Your task to perform on an android device: set the timer Image 0: 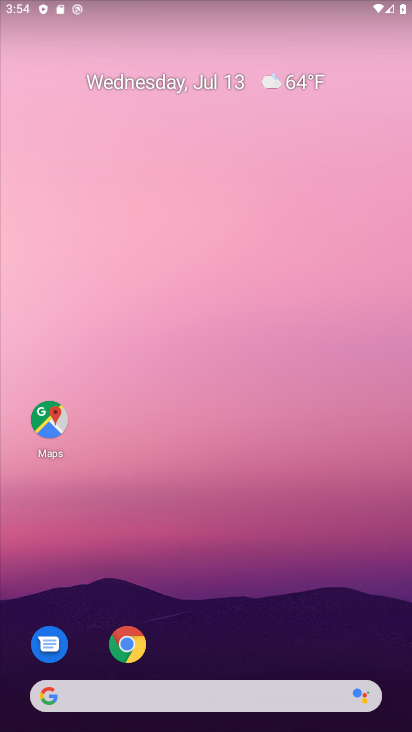
Step 0: click (127, 644)
Your task to perform on an android device: set the timer Image 1: 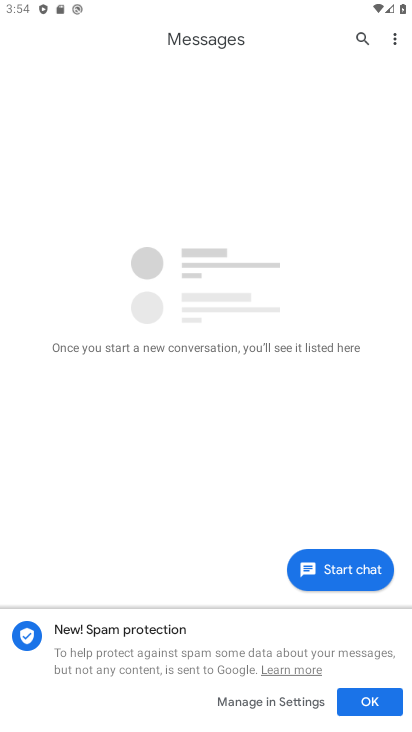
Step 1: press home button
Your task to perform on an android device: set the timer Image 2: 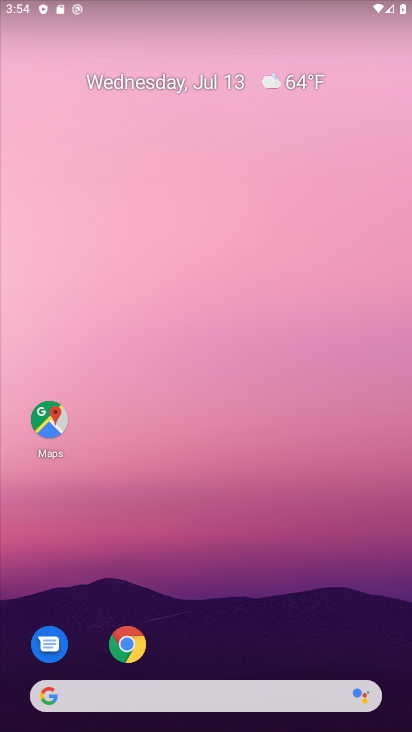
Step 2: drag from (267, 539) to (243, 120)
Your task to perform on an android device: set the timer Image 3: 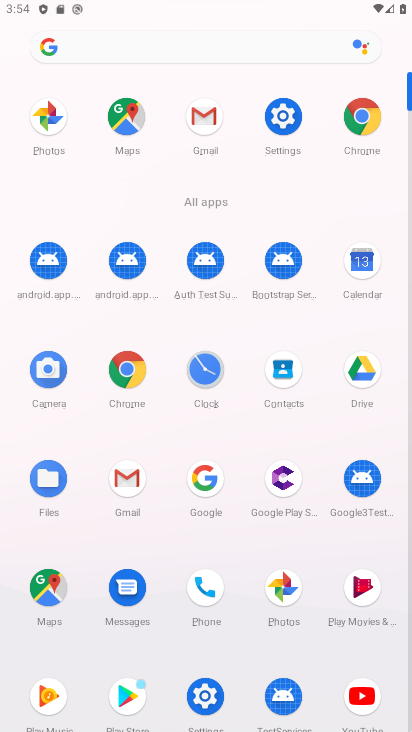
Step 3: click (200, 364)
Your task to perform on an android device: set the timer Image 4: 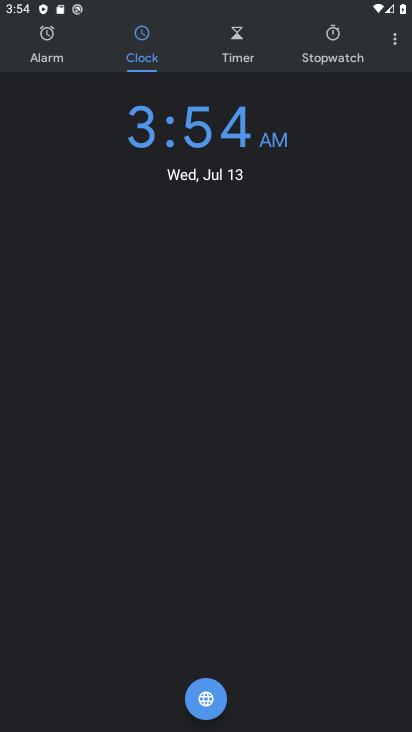
Step 4: click (232, 43)
Your task to perform on an android device: set the timer Image 5: 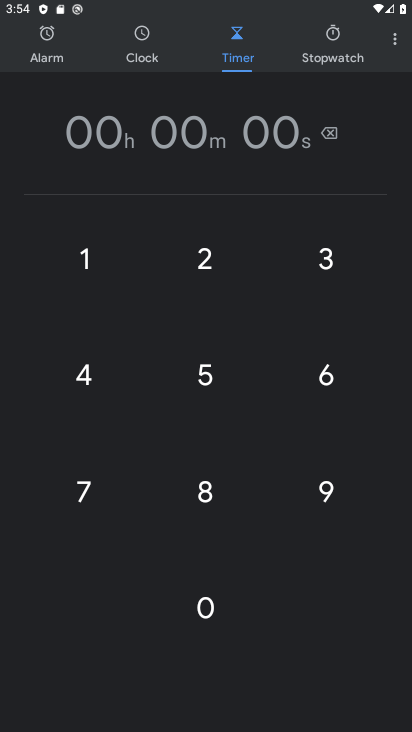
Step 5: click (88, 265)
Your task to perform on an android device: set the timer Image 6: 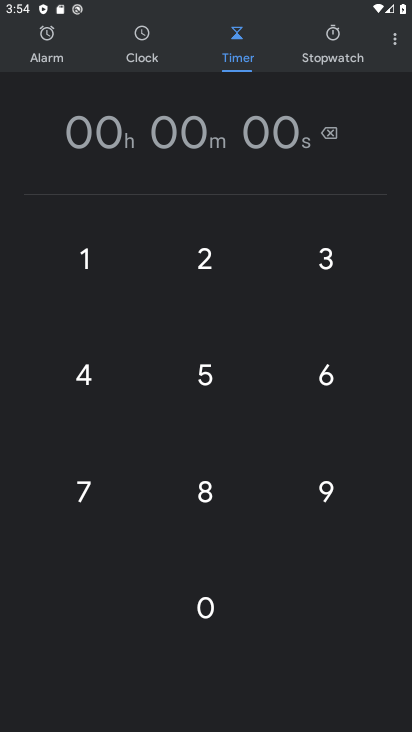
Step 6: click (88, 265)
Your task to perform on an android device: set the timer Image 7: 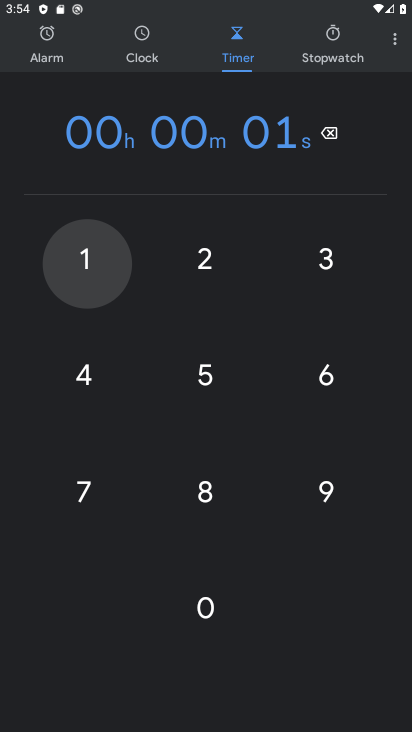
Step 7: click (88, 265)
Your task to perform on an android device: set the timer Image 8: 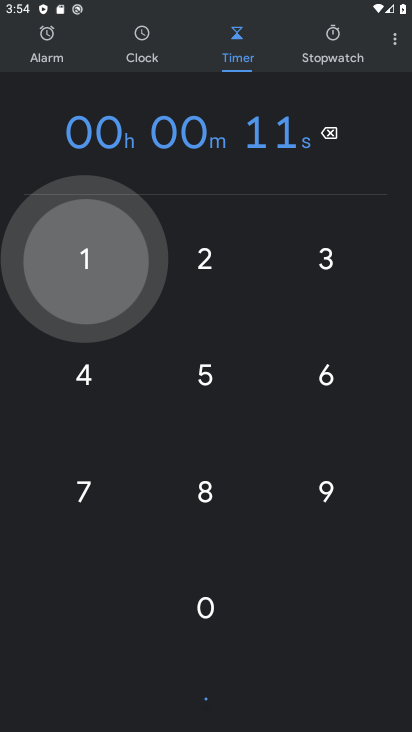
Step 8: click (88, 265)
Your task to perform on an android device: set the timer Image 9: 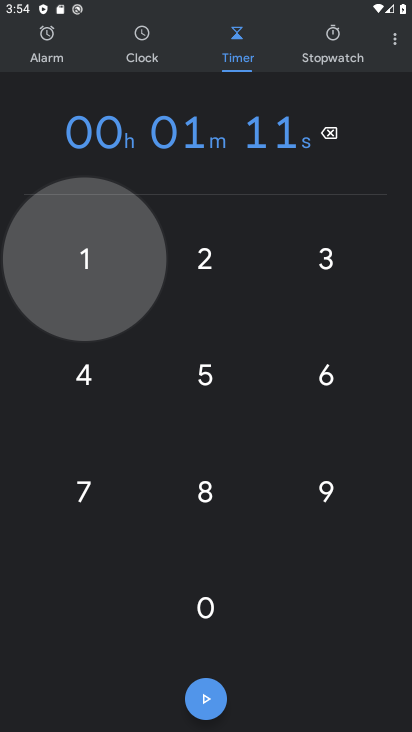
Step 9: click (88, 265)
Your task to perform on an android device: set the timer Image 10: 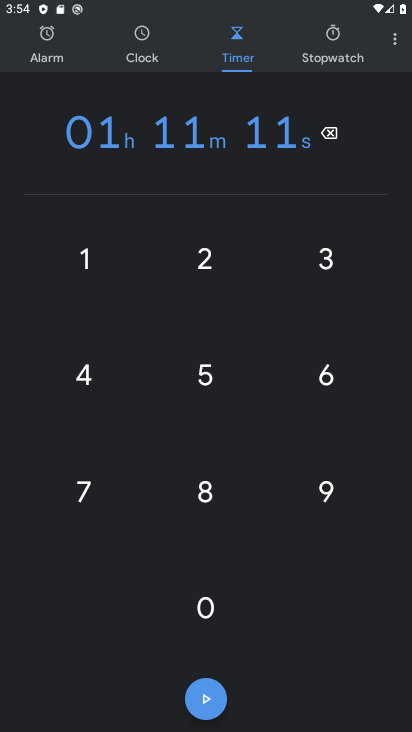
Step 10: click (88, 265)
Your task to perform on an android device: set the timer Image 11: 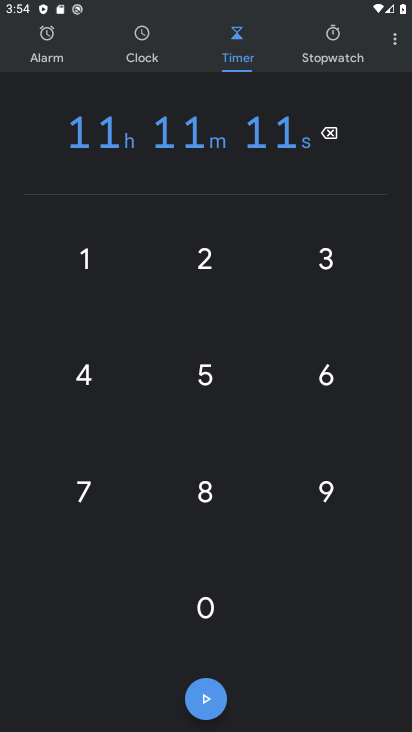
Step 11: click (88, 265)
Your task to perform on an android device: set the timer Image 12: 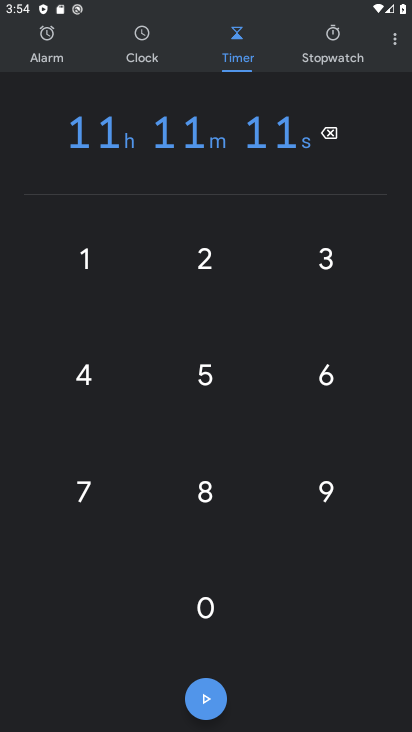
Step 12: task complete